Your task to perform on an android device: open app "Speedtest by Ookla" Image 0: 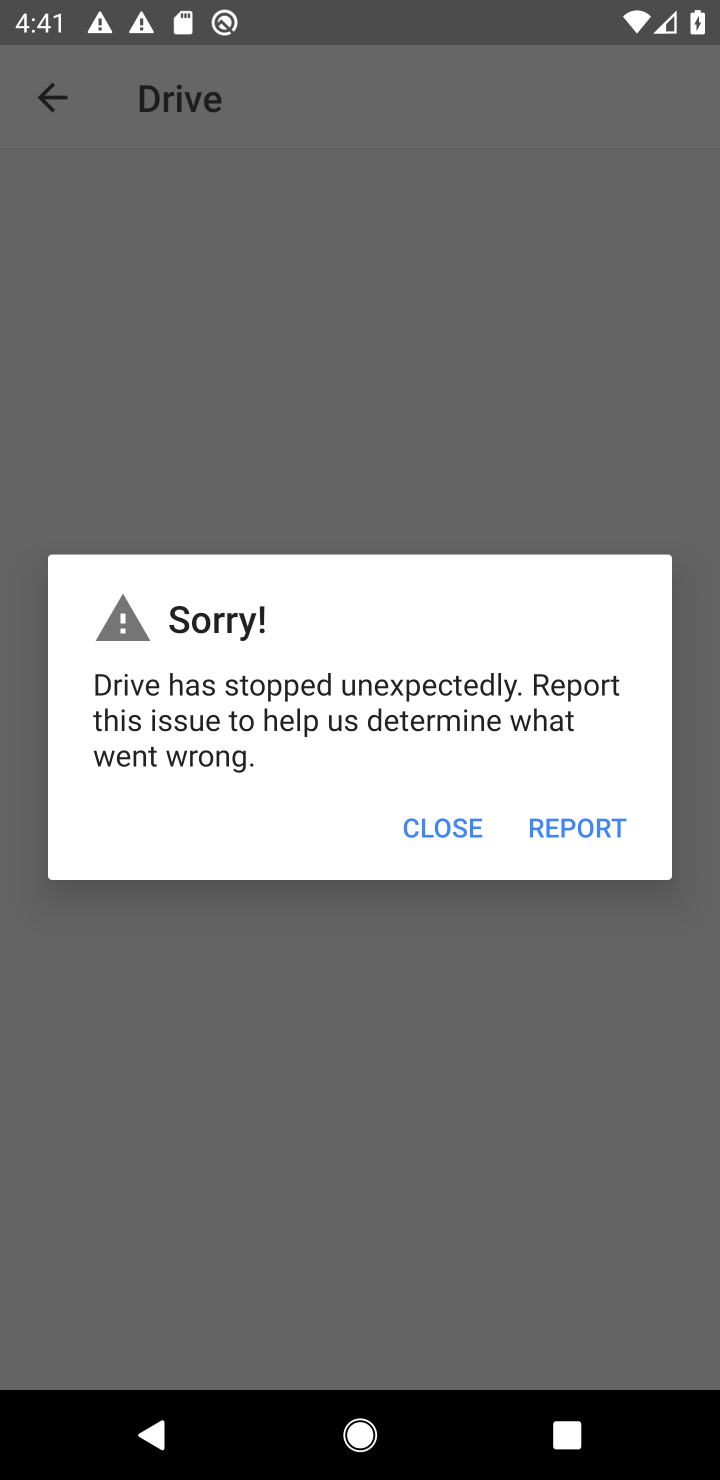
Step 0: click (607, 224)
Your task to perform on an android device: open app "Speedtest by Ookla" Image 1: 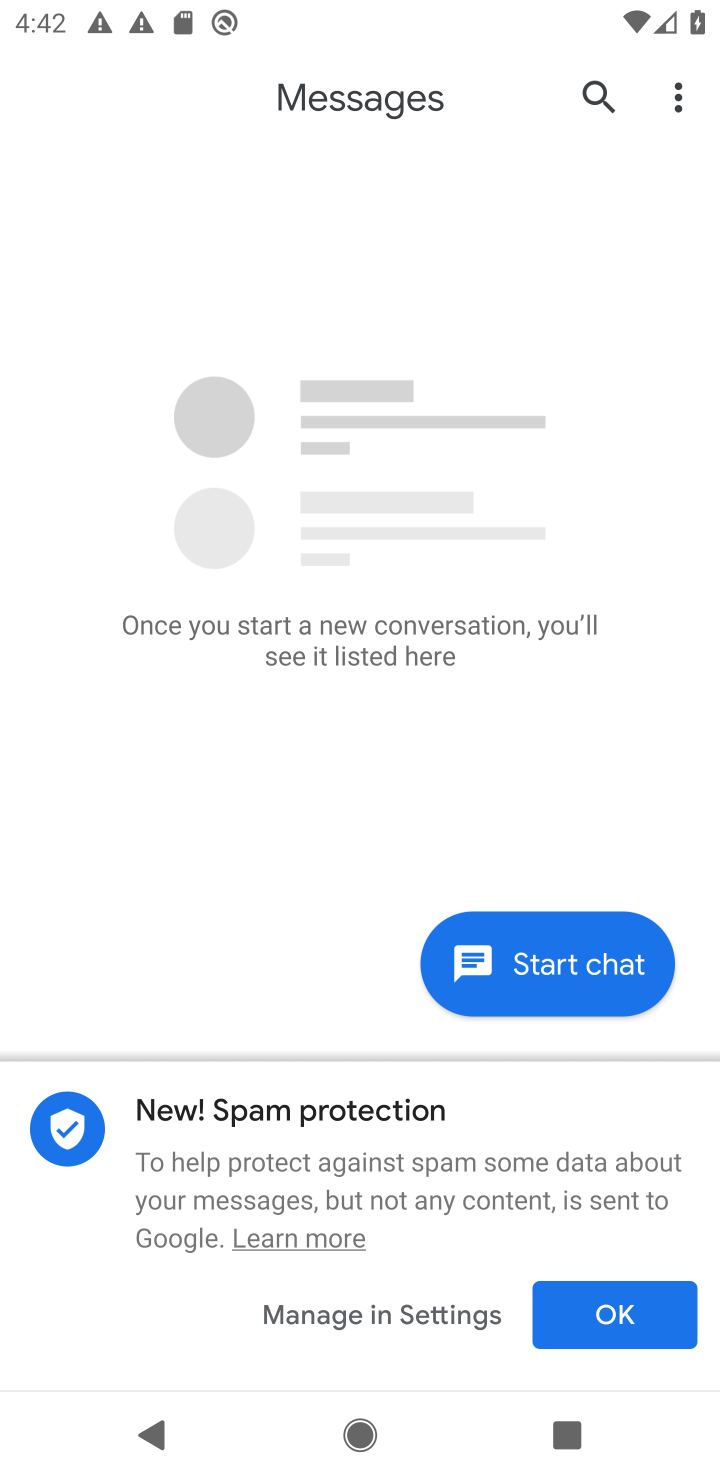
Step 1: press home button
Your task to perform on an android device: open app "Speedtest by Ookla" Image 2: 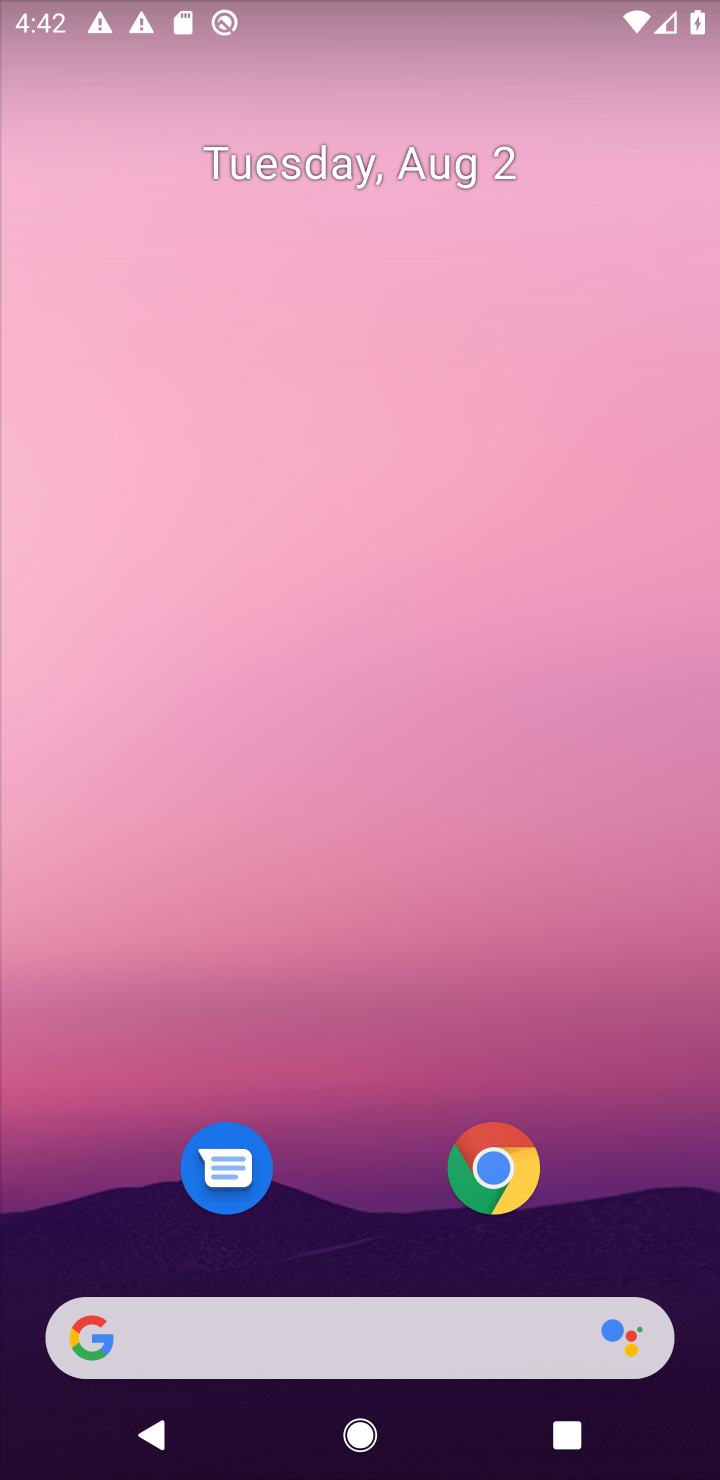
Step 2: drag from (366, 1163) to (454, 256)
Your task to perform on an android device: open app "Speedtest by Ookla" Image 3: 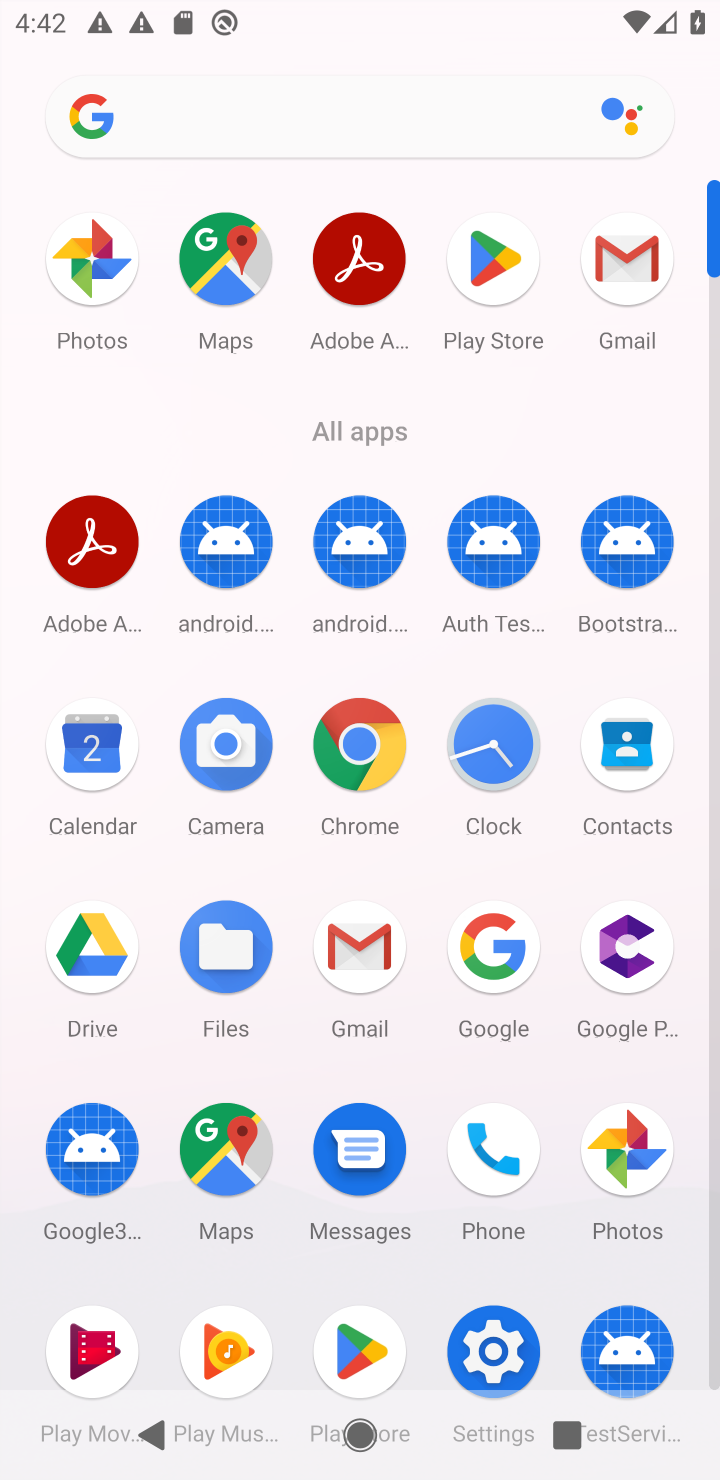
Step 3: click (506, 300)
Your task to perform on an android device: open app "Speedtest by Ookla" Image 4: 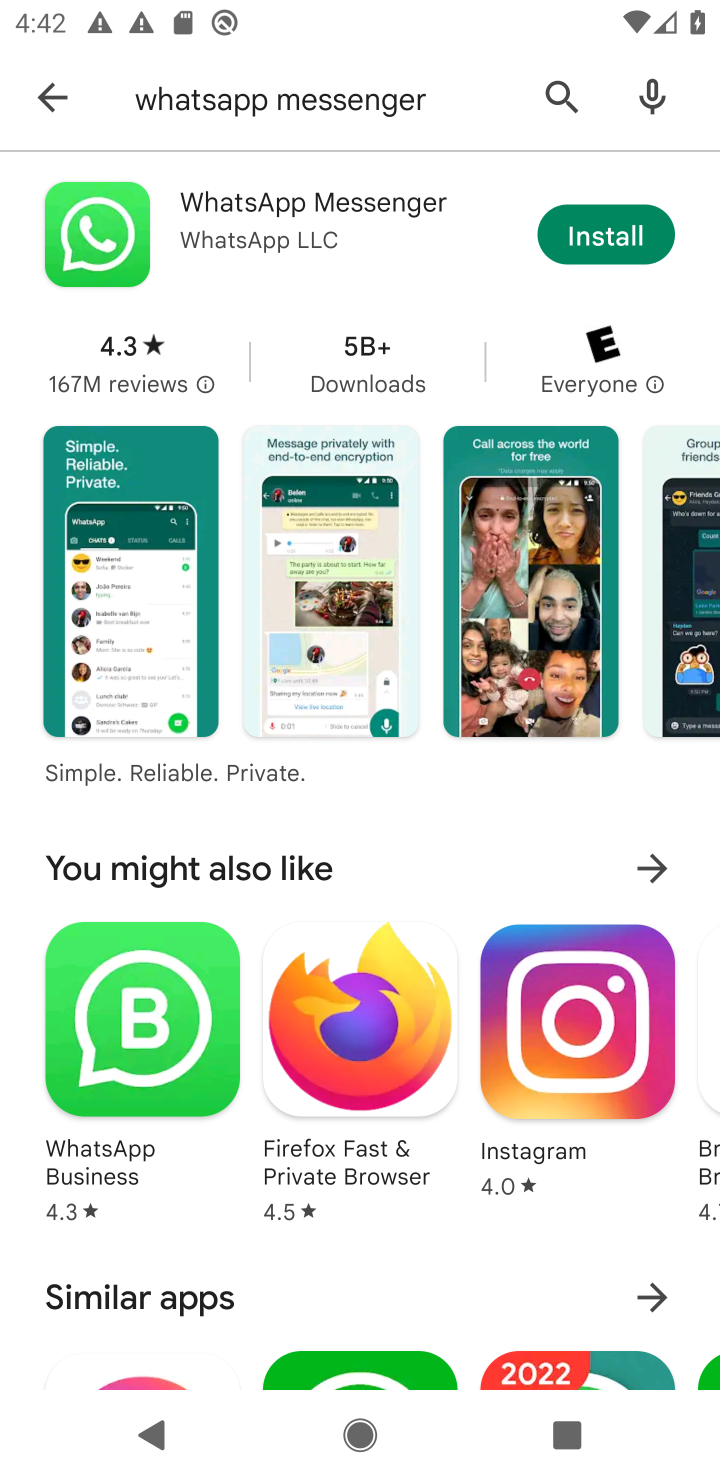
Step 4: click (320, 103)
Your task to perform on an android device: open app "Speedtest by Ookla" Image 5: 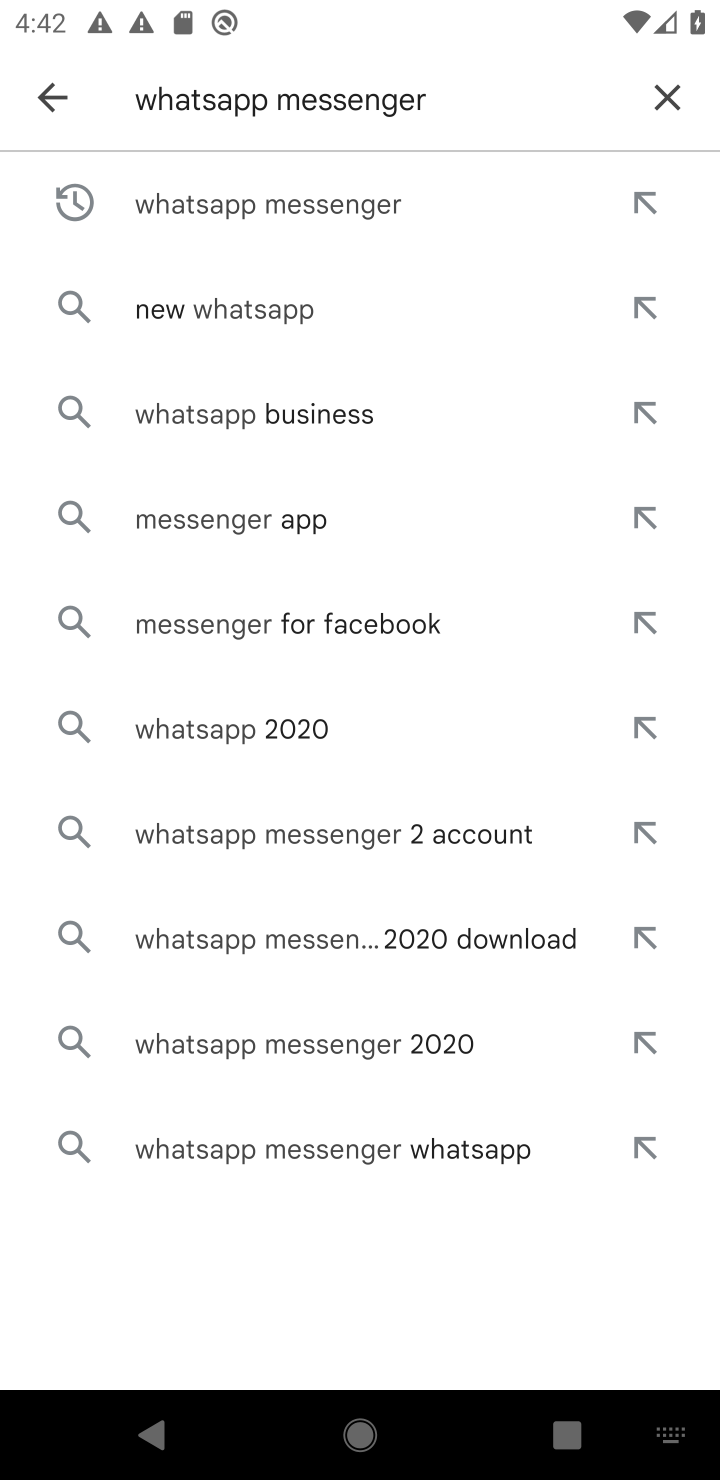
Step 5: click (674, 86)
Your task to perform on an android device: open app "Speedtest by Ookla" Image 6: 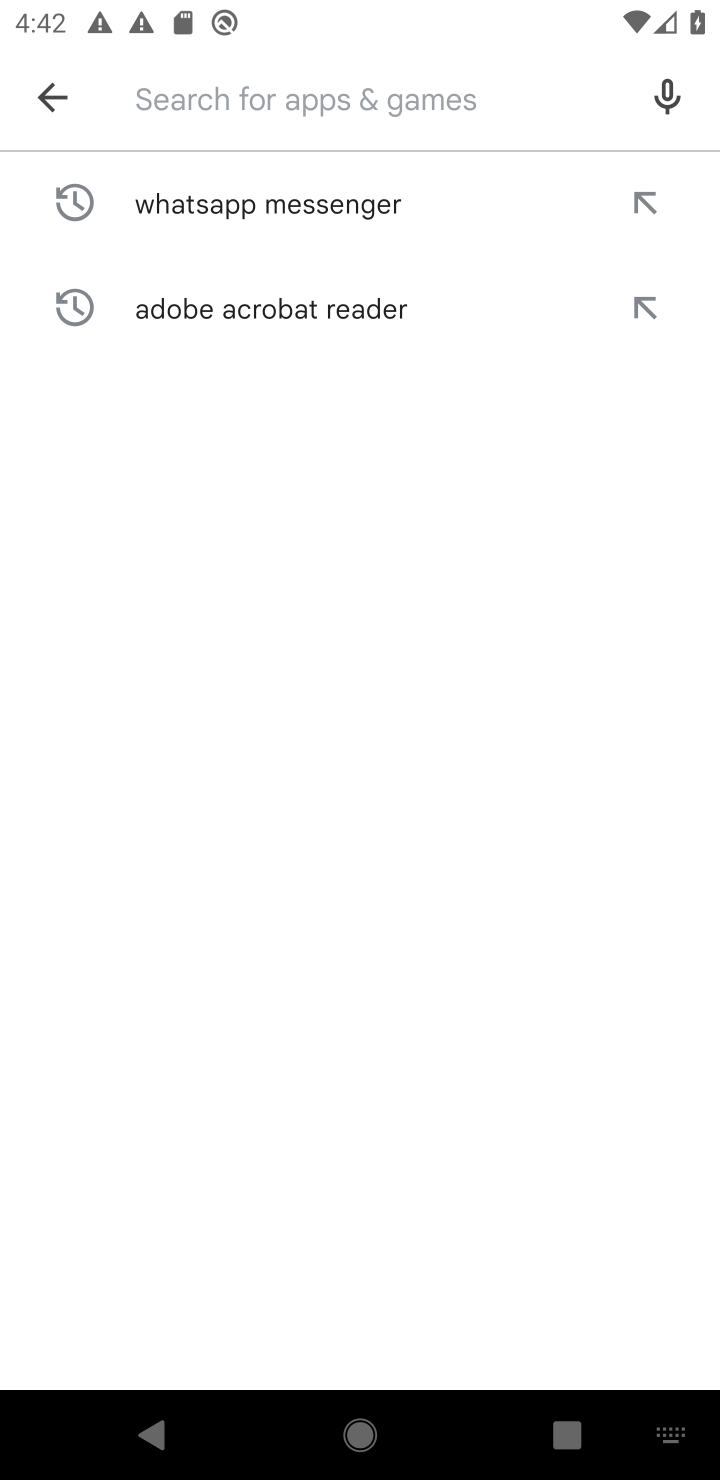
Step 6: type "speedtest by Ookla"
Your task to perform on an android device: open app "Speedtest by Ookla" Image 7: 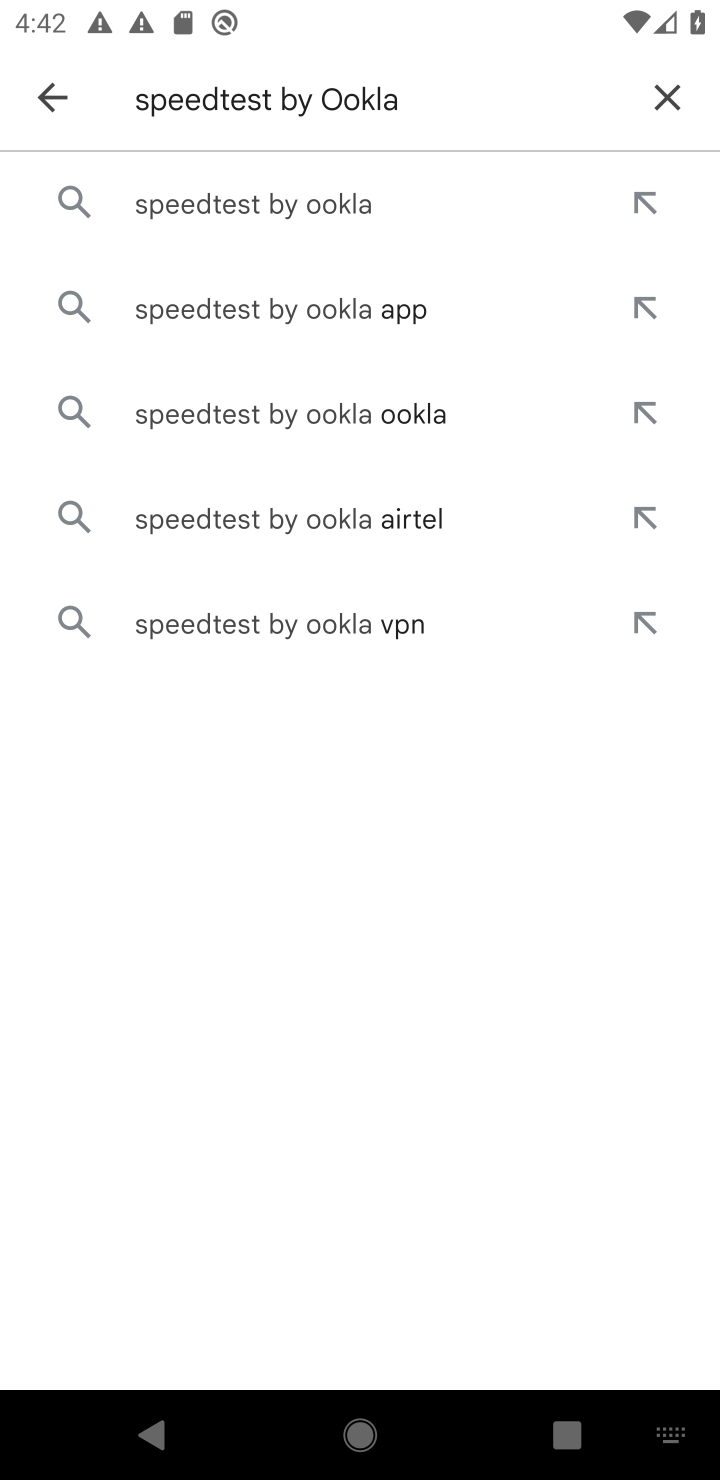
Step 7: click (253, 197)
Your task to perform on an android device: open app "Speedtest by Ookla" Image 8: 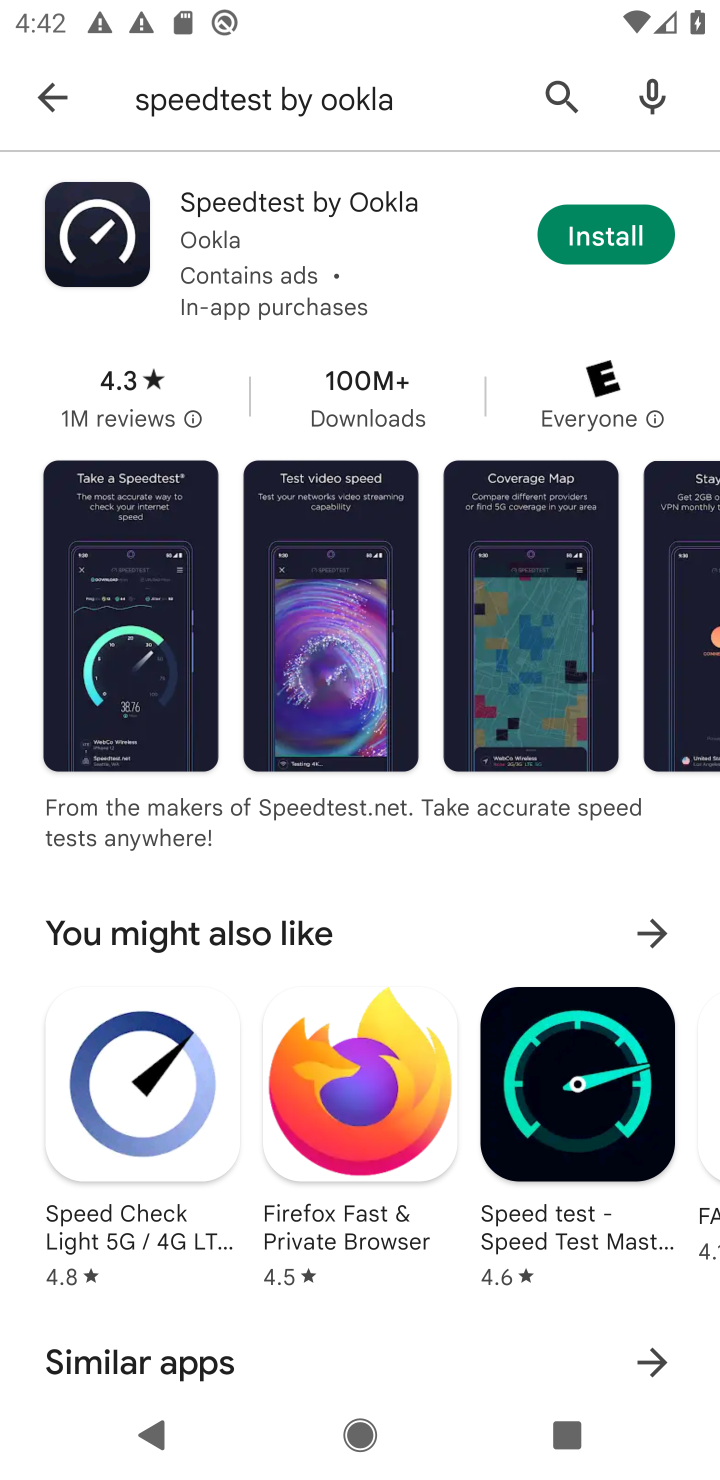
Step 8: task complete